Your task to perform on an android device: Open ESPN.com Image 0: 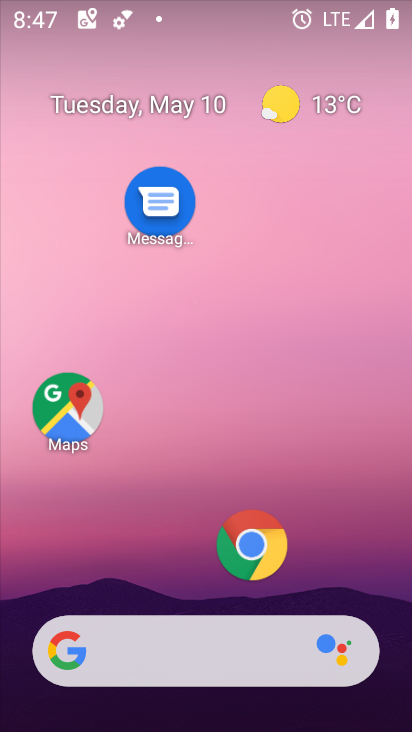
Step 0: press home button
Your task to perform on an android device: Open ESPN.com Image 1: 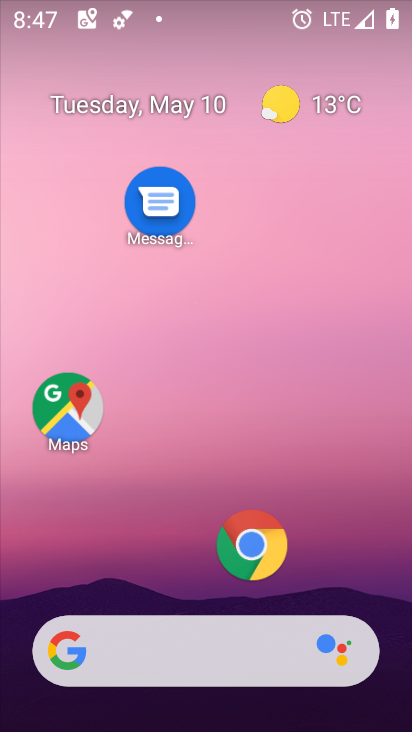
Step 1: click (252, 543)
Your task to perform on an android device: Open ESPN.com Image 2: 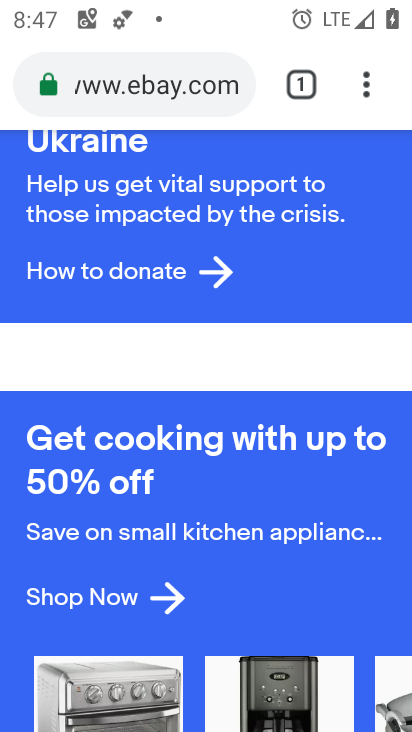
Step 2: click (295, 79)
Your task to perform on an android device: Open ESPN.com Image 3: 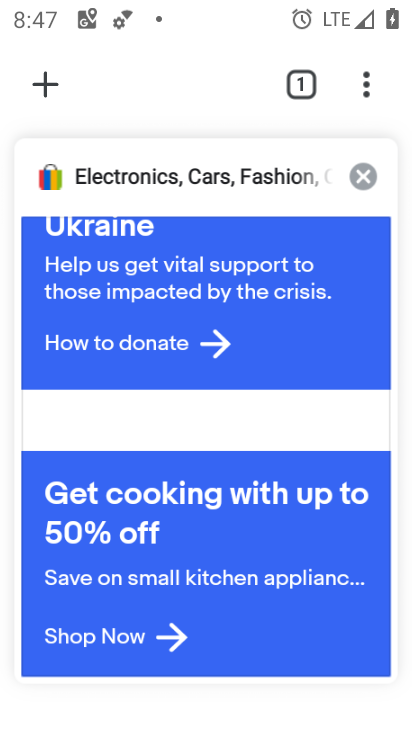
Step 3: click (362, 171)
Your task to perform on an android device: Open ESPN.com Image 4: 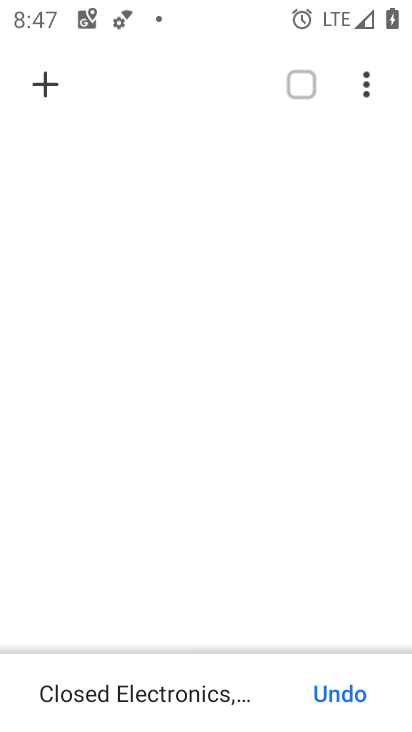
Step 4: click (56, 83)
Your task to perform on an android device: Open ESPN.com Image 5: 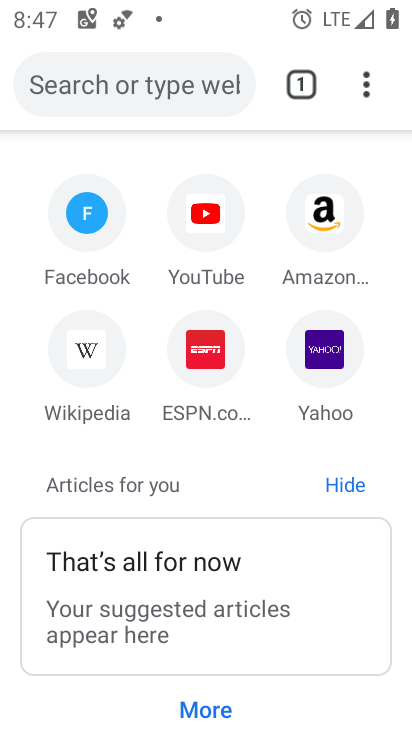
Step 5: click (137, 81)
Your task to perform on an android device: Open ESPN.com Image 6: 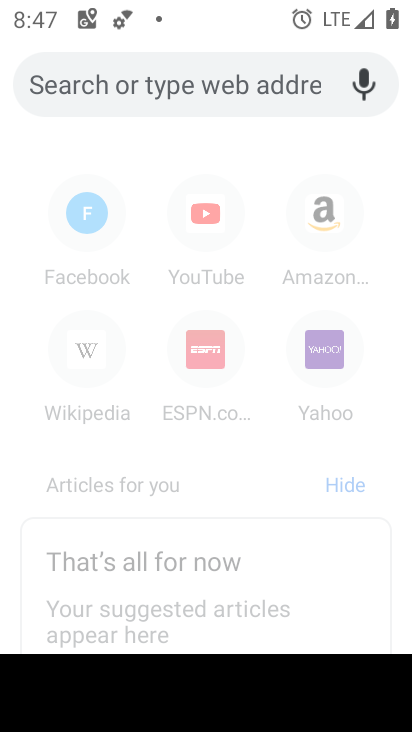
Step 6: click (210, 354)
Your task to perform on an android device: Open ESPN.com Image 7: 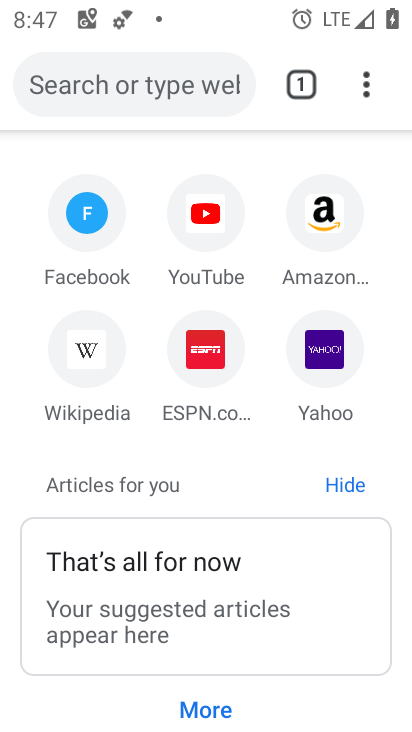
Step 7: click (206, 352)
Your task to perform on an android device: Open ESPN.com Image 8: 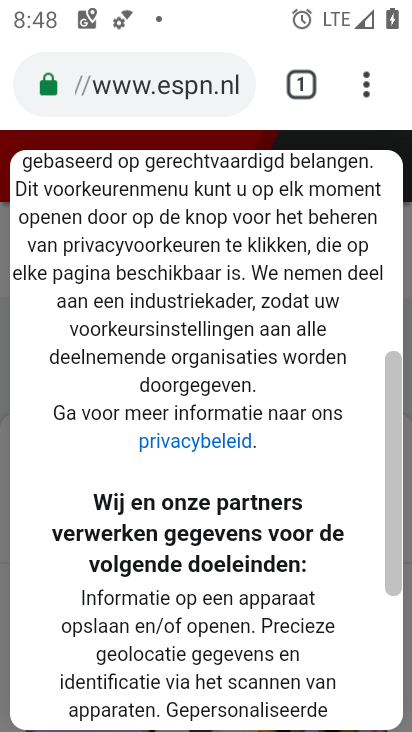
Step 8: drag from (235, 641) to (276, 216)
Your task to perform on an android device: Open ESPN.com Image 9: 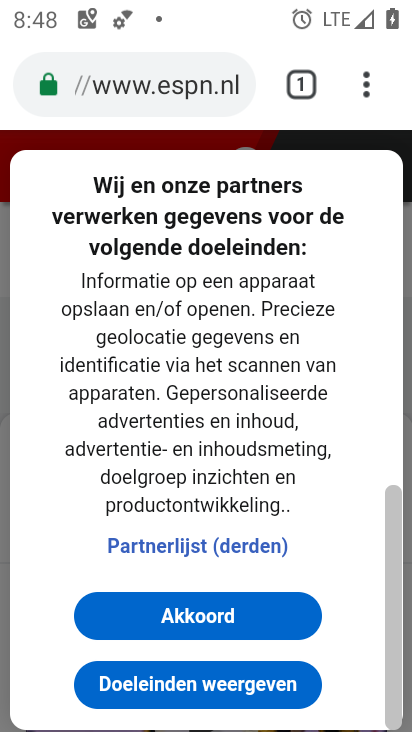
Step 9: click (203, 614)
Your task to perform on an android device: Open ESPN.com Image 10: 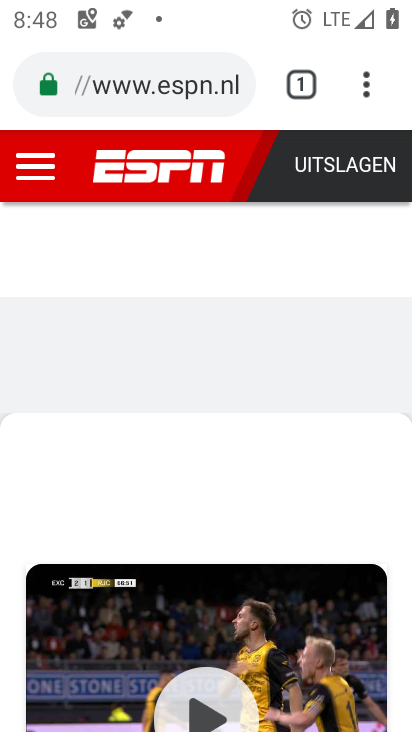
Step 10: task complete